Your task to perform on an android device: clear history in the chrome app Image 0: 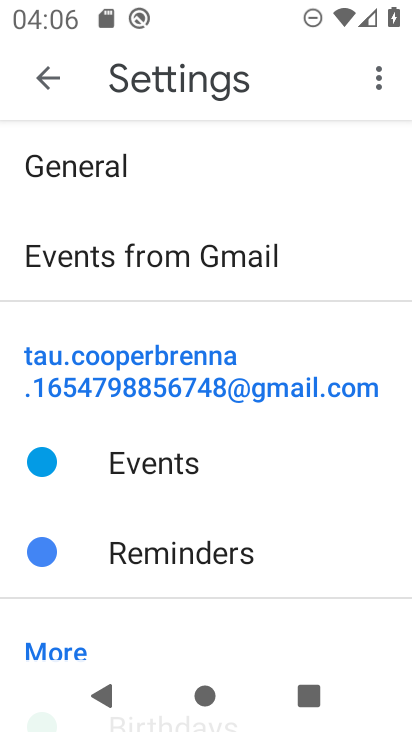
Step 0: press back button
Your task to perform on an android device: clear history in the chrome app Image 1: 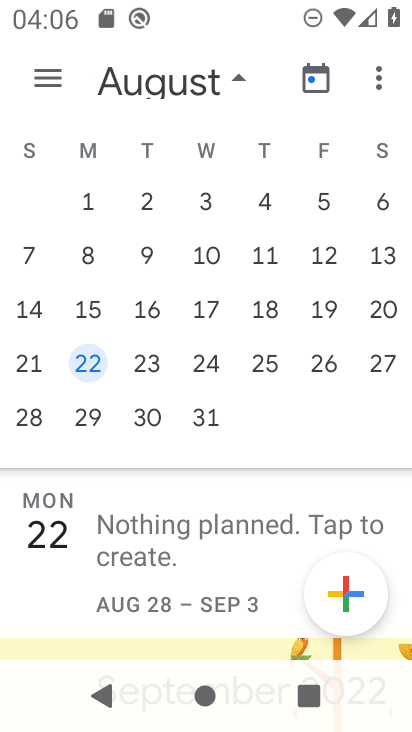
Step 1: press home button
Your task to perform on an android device: clear history in the chrome app Image 2: 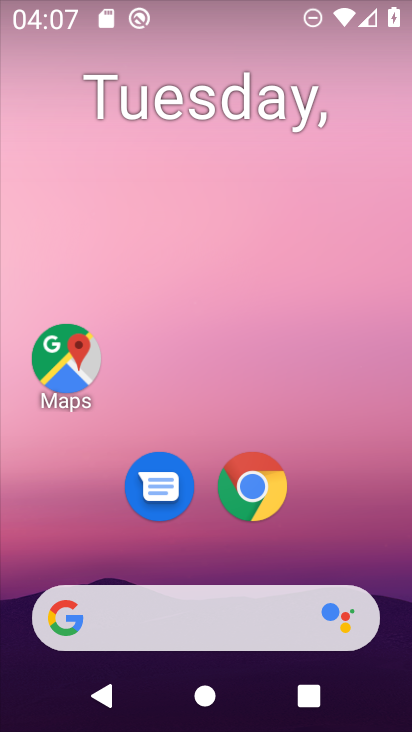
Step 2: click (267, 477)
Your task to perform on an android device: clear history in the chrome app Image 3: 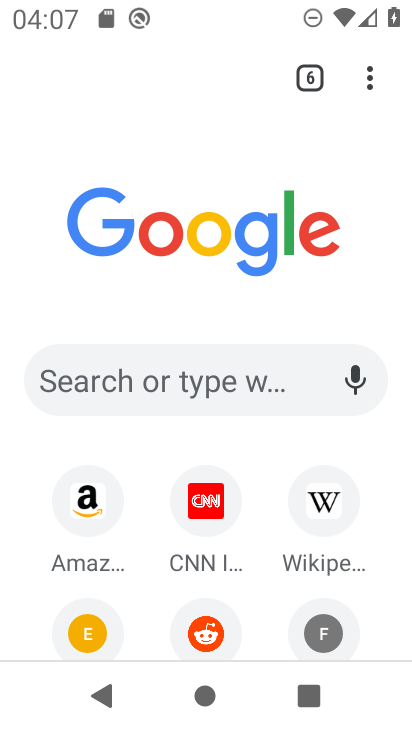
Step 3: drag from (375, 65) to (142, 548)
Your task to perform on an android device: clear history in the chrome app Image 4: 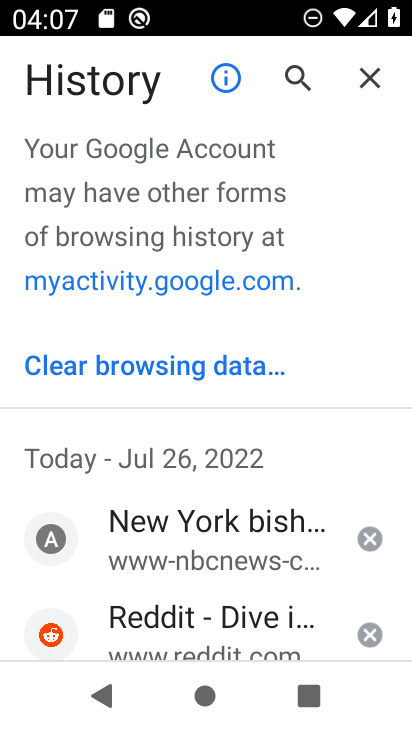
Step 4: click (157, 365)
Your task to perform on an android device: clear history in the chrome app Image 5: 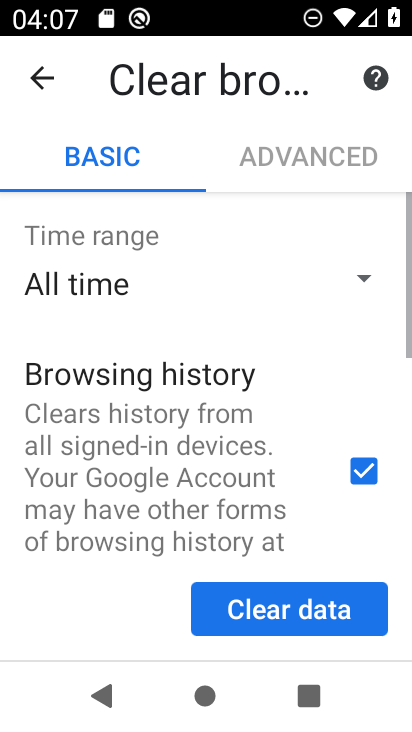
Step 5: drag from (207, 539) to (276, 117)
Your task to perform on an android device: clear history in the chrome app Image 6: 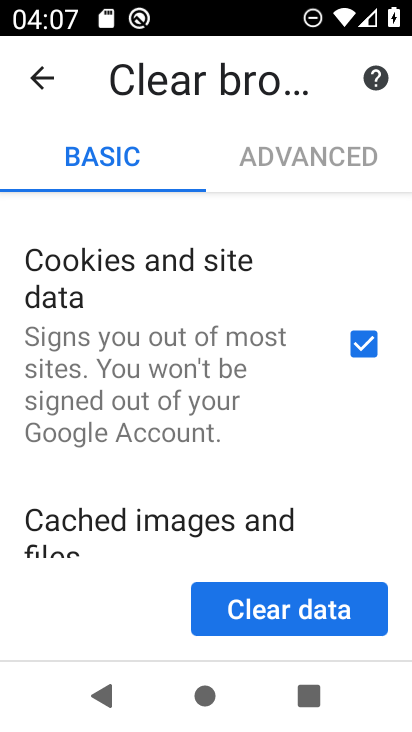
Step 6: drag from (161, 553) to (228, 138)
Your task to perform on an android device: clear history in the chrome app Image 7: 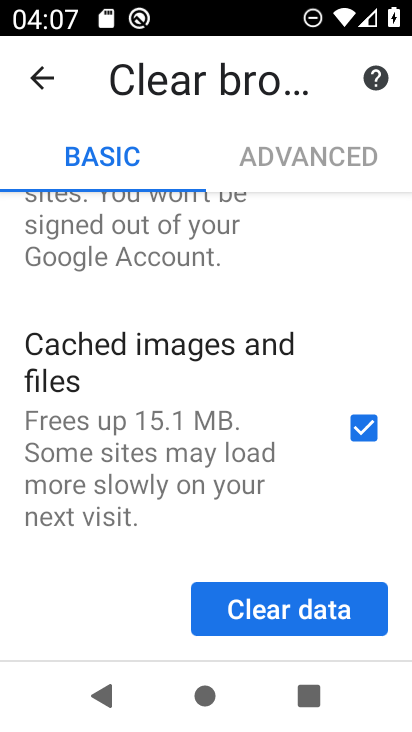
Step 7: drag from (178, 487) to (261, 103)
Your task to perform on an android device: clear history in the chrome app Image 8: 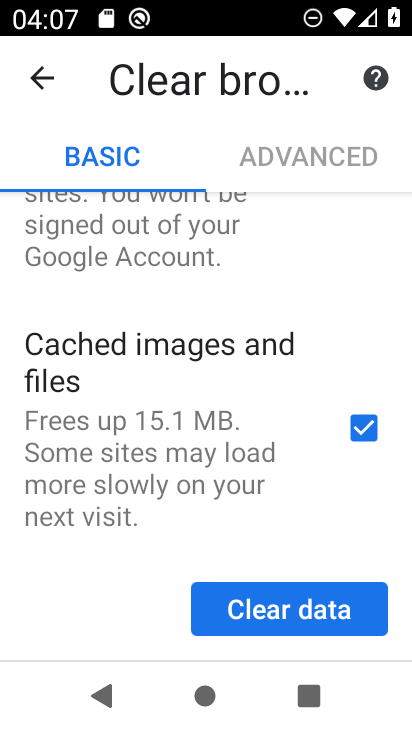
Step 8: drag from (268, 499) to (318, 123)
Your task to perform on an android device: clear history in the chrome app Image 9: 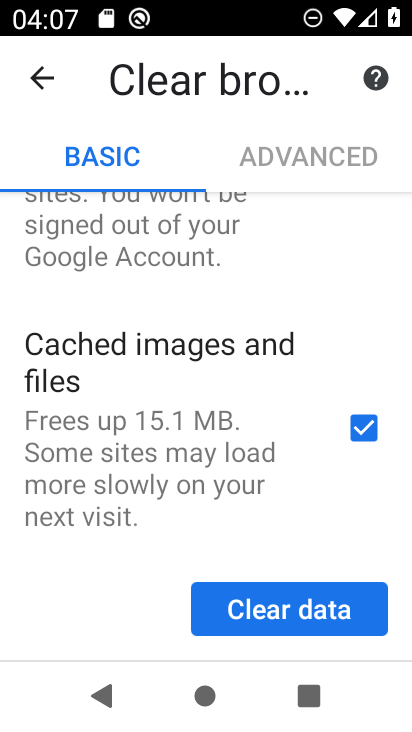
Step 9: drag from (236, 257) to (179, 522)
Your task to perform on an android device: clear history in the chrome app Image 10: 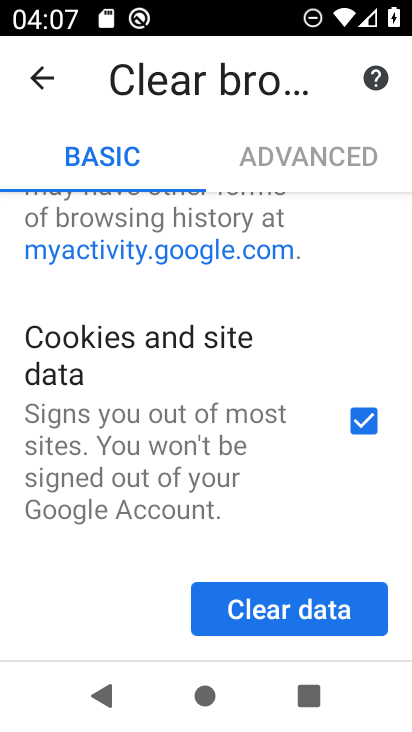
Step 10: drag from (161, 223) to (131, 510)
Your task to perform on an android device: clear history in the chrome app Image 11: 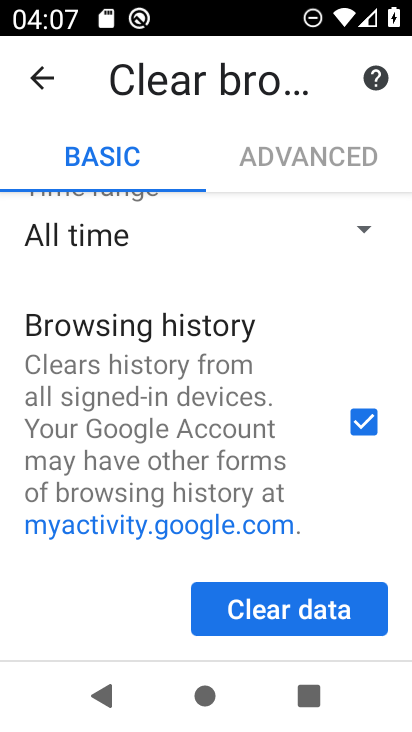
Step 11: click (263, 604)
Your task to perform on an android device: clear history in the chrome app Image 12: 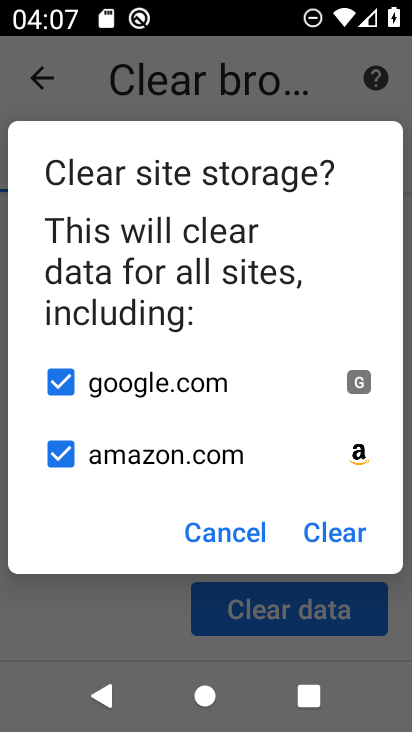
Step 12: click (345, 517)
Your task to perform on an android device: clear history in the chrome app Image 13: 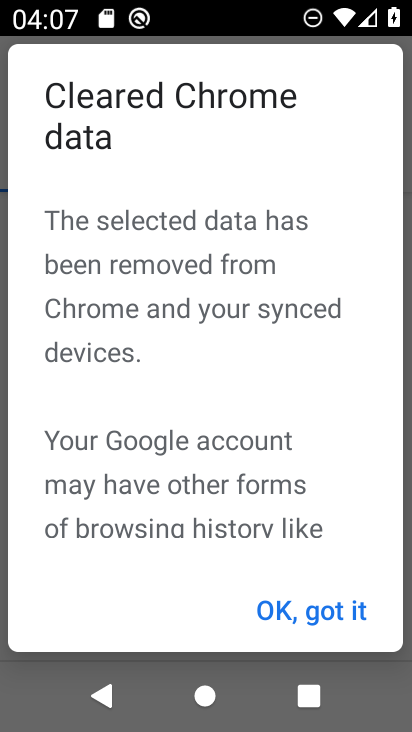
Step 13: task complete